Your task to perform on an android device: Clear all items from cart on bestbuy.com. Search for "rayovac triple a" on bestbuy.com, select the first entry, add it to the cart, then select checkout. Image 0: 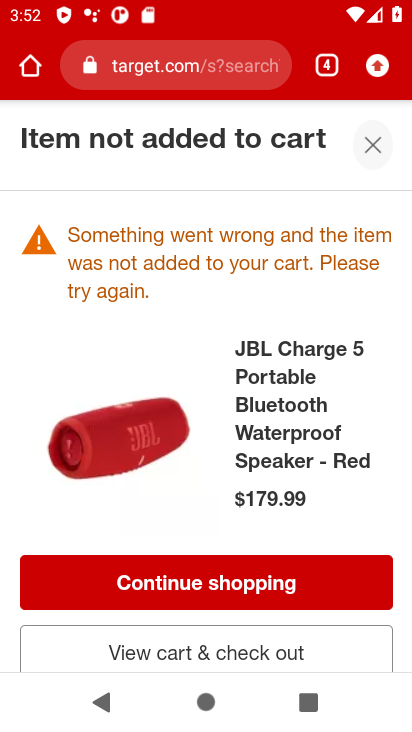
Step 0: press home button
Your task to perform on an android device: Clear all items from cart on bestbuy.com. Search for "rayovac triple a" on bestbuy.com, select the first entry, add it to the cart, then select checkout. Image 1: 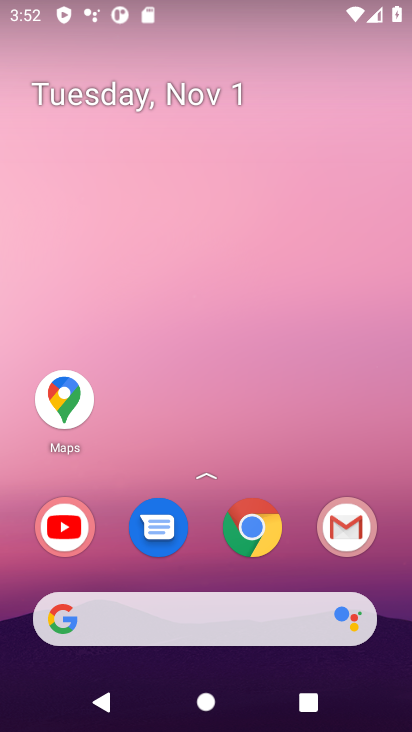
Step 1: click (193, 612)
Your task to perform on an android device: Clear all items from cart on bestbuy.com. Search for "rayovac triple a" on bestbuy.com, select the first entry, add it to the cart, then select checkout. Image 2: 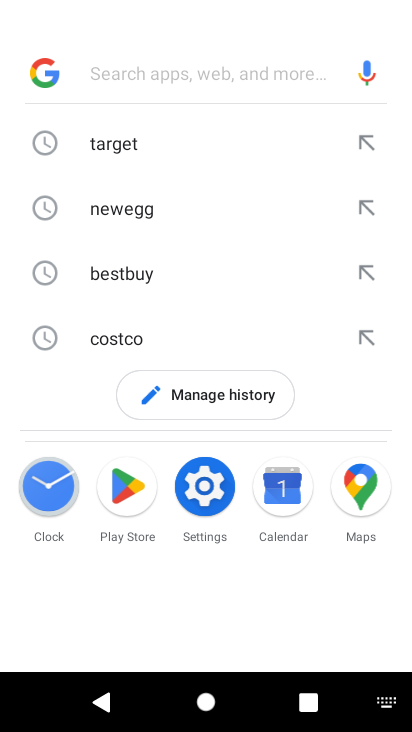
Step 2: type " bestbuy.com"
Your task to perform on an android device: Clear all items from cart on bestbuy.com. Search for "rayovac triple a" on bestbuy.com, select the first entry, add it to the cart, then select checkout. Image 3: 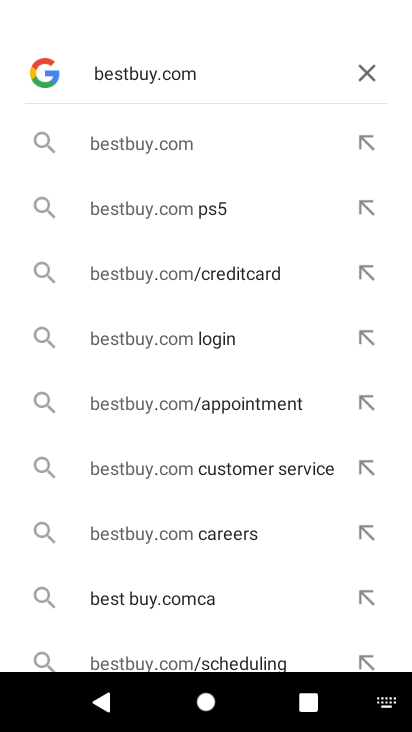
Step 3: press enter
Your task to perform on an android device: Clear all items from cart on bestbuy.com. Search for "rayovac triple a" on bestbuy.com, select the first entry, add it to the cart, then select checkout. Image 4: 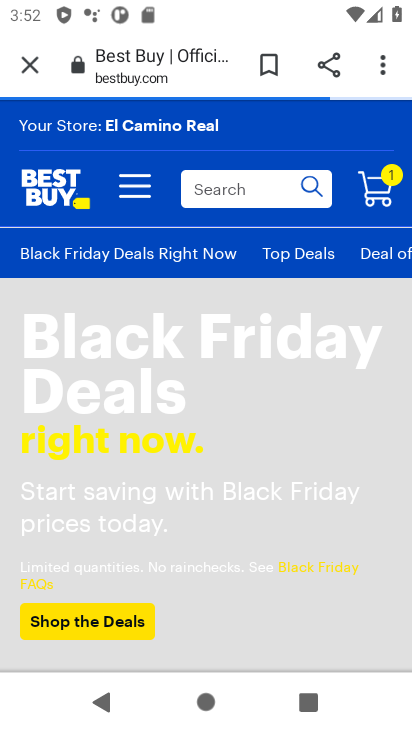
Step 4: click (383, 197)
Your task to perform on an android device: Clear all items from cart on bestbuy.com. Search for "rayovac triple a" on bestbuy.com, select the first entry, add it to the cart, then select checkout. Image 5: 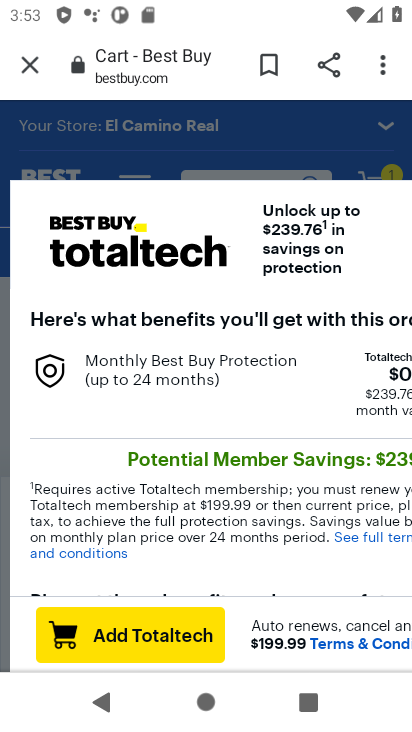
Step 5: drag from (281, 414) to (202, 298)
Your task to perform on an android device: Clear all items from cart on bestbuy.com. Search for "rayovac triple a" on bestbuy.com, select the first entry, add it to the cart, then select checkout. Image 6: 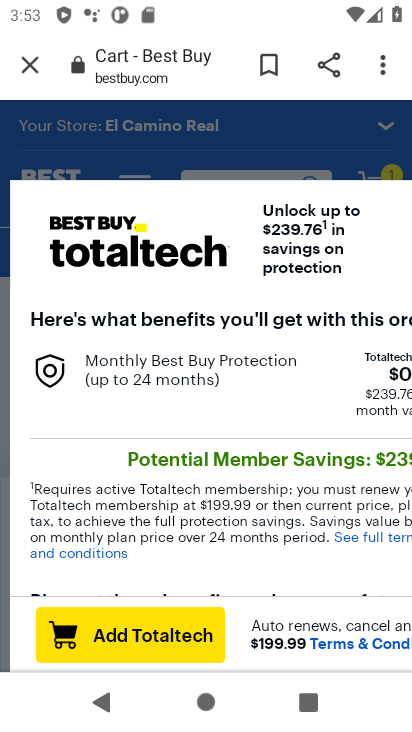
Step 6: click (282, 147)
Your task to perform on an android device: Clear all items from cart on bestbuy.com. Search for "rayovac triple a" on bestbuy.com, select the first entry, add it to the cart, then select checkout. Image 7: 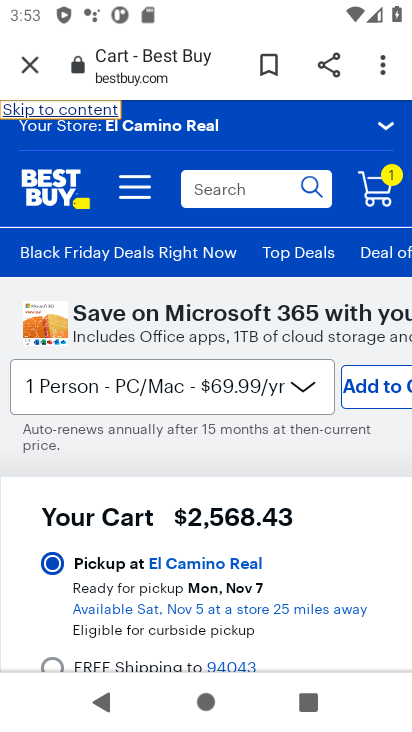
Step 7: drag from (269, 580) to (204, 547)
Your task to perform on an android device: Clear all items from cart on bestbuy.com. Search for "rayovac triple a" on bestbuy.com, select the first entry, add it to the cart, then select checkout. Image 8: 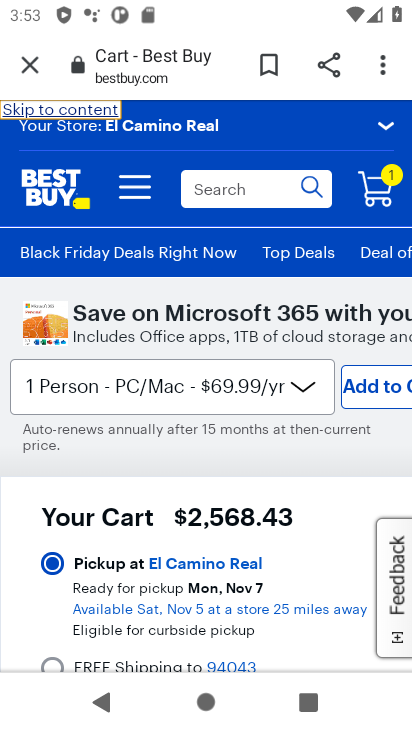
Step 8: click (102, 529)
Your task to perform on an android device: Clear all items from cart on bestbuy.com. Search for "rayovac triple a" on bestbuy.com, select the first entry, add it to the cart, then select checkout. Image 9: 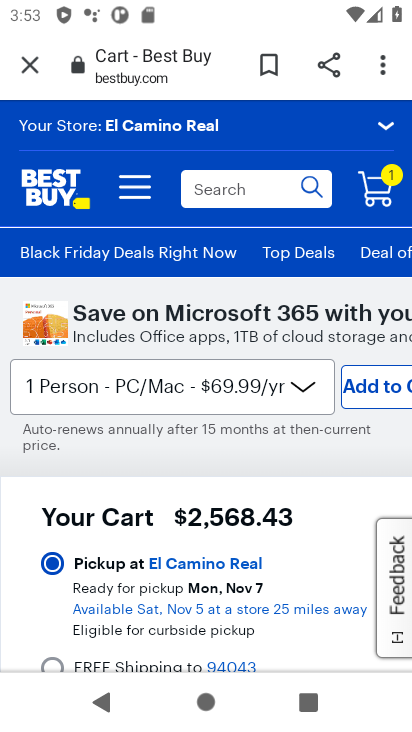
Step 9: drag from (277, 622) to (36, 576)
Your task to perform on an android device: Clear all items from cart on bestbuy.com. Search for "rayovac triple a" on bestbuy.com, select the first entry, add it to the cart, then select checkout. Image 10: 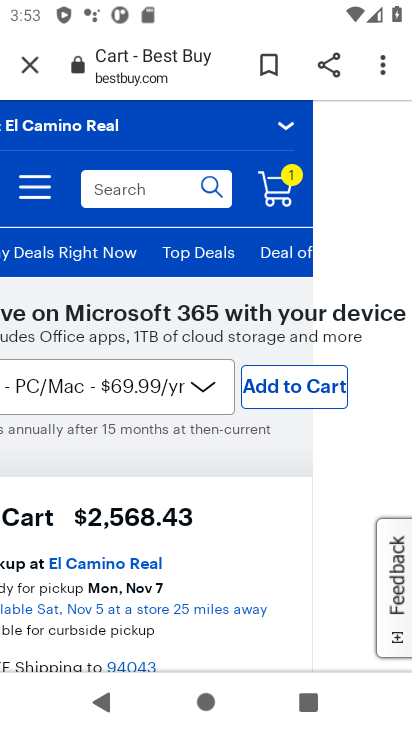
Step 10: drag from (239, 545) to (252, 440)
Your task to perform on an android device: Clear all items from cart on bestbuy.com. Search for "rayovac triple a" on bestbuy.com, select the first entry, add it to the cart, then select checkout. Image 11: 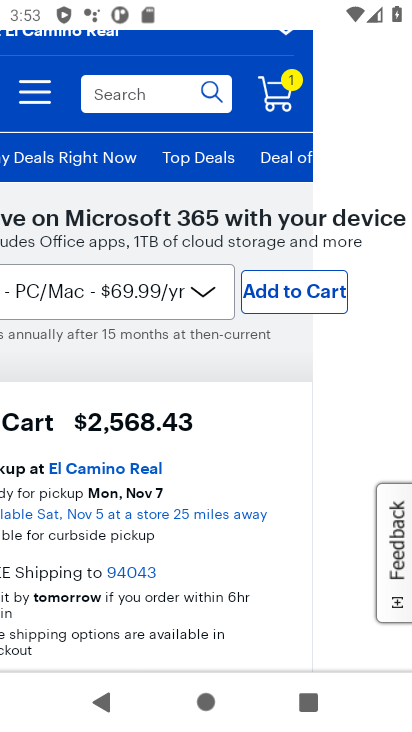
Step 11: drag from (237, 456) to (352, 458)
Your task to perform on an android device: Clear all items from cart on bestbuy.com. Search for "rayovac triple a" on bestbuy.com, select the first entry, add it to the cart, then select checkout. Image 12: 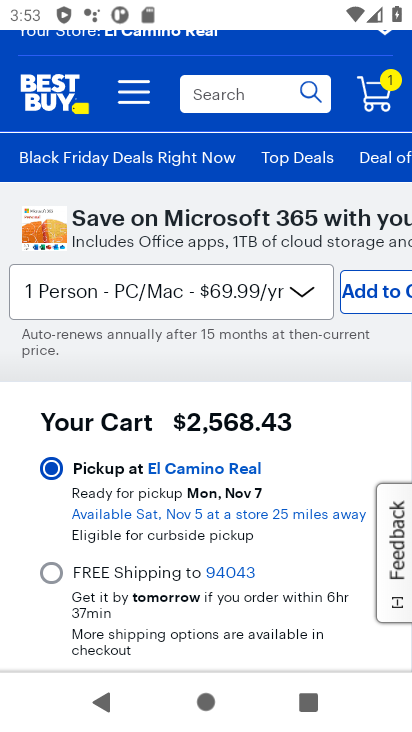
Step 12: click (308, 294)
Your task to perform on an android device: Clear all items from cart on bestbuy.com. Search for "rayovac triple a" on bestbuy.com, select the first entry, add it to the cart, then select checkout. Image 13: 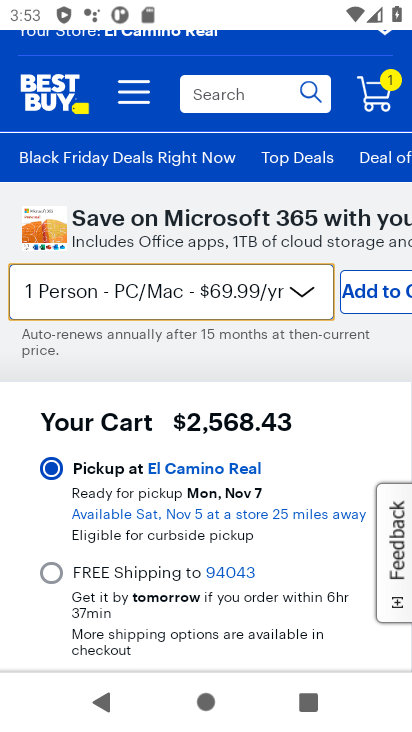
Step 13: click (304, 292)
Your task to perform on an android device: Clear all items from cart on bestbuy.com. Search for "rayovac triple a" on bestbuy.com, select the first entry, add it to the cart, then select checkout. Image 14: 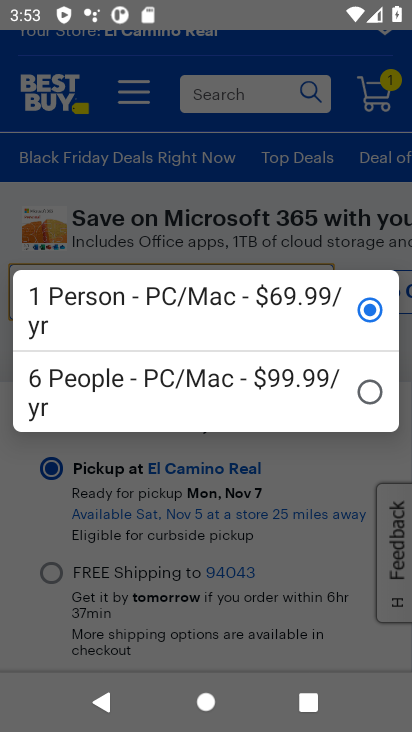
Step 14: click (23, 517)
Your task to perform on an android device: Clear all items from cart on bestbuy.com. Search for "rayovac triple a" on bestbuy.com, select the first entry, add it to the cart, then select checkout. Image 15: 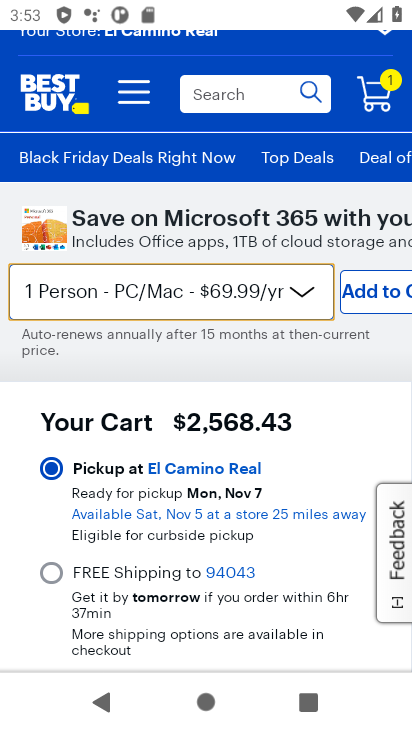
Step 15: click (54, 467)
Your task to perform on an android device: Clear all items from cart on bestbuy.com. Search for "rayovac triple a" on bestbuy.com, select the first entry, add it to the cart, then select checkout. Image 16: 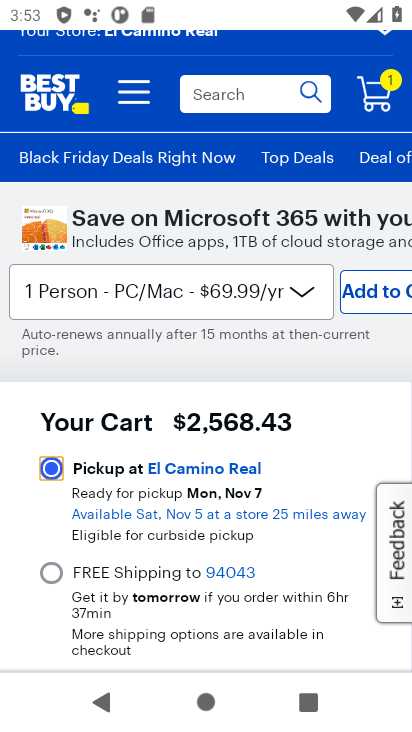
Step 16: click (54, 467)
Your task to perform on an android device: Clear all items from cart on bestbuy.com. Search for "rayovac triple a" on bestbuy.com, select the first entry, add it to the cart, then select checkout. Image 17: 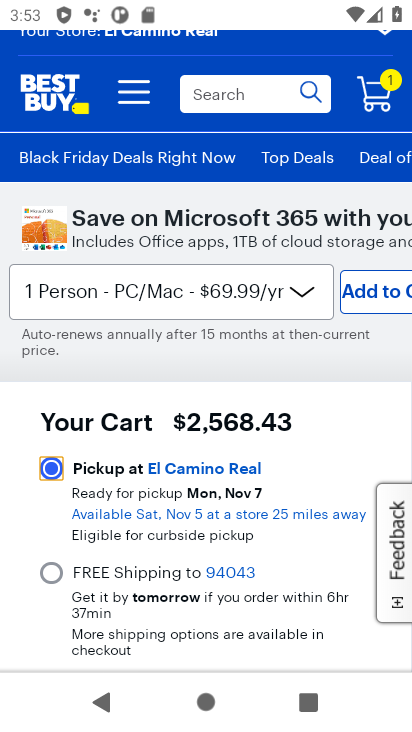
Step 17: click (267, 251)
Your task to perform on an android device: Clear all items from cart on bestbuy.com. Search for "rayovac triple a" on bestbuy.com, select the first entry, add it to the cart, then select checkout. Image 18: 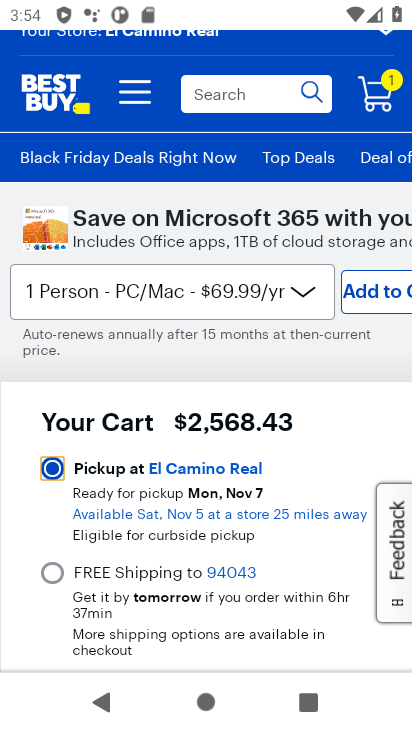
Step 18: drag from (160, 583) to (125, 229)
Your task to perform on an android device: Clear all items from cart on bestbuy.com. Search for "rayovac triple a" on bestbuy.com, select the first entry, add it to the cart, then select checkout. Image 19: 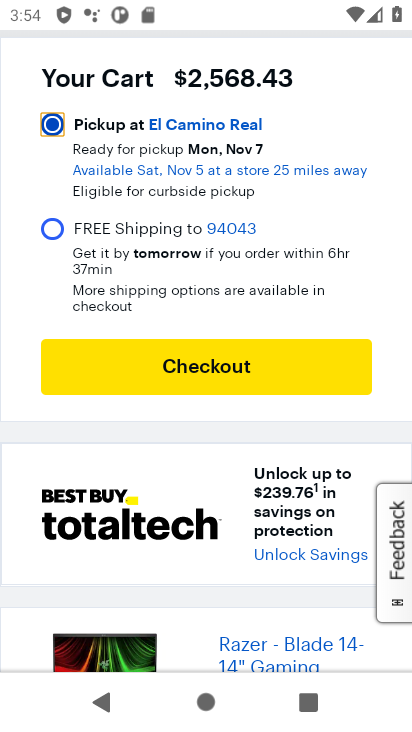
Step 19: drag from (191, 569) to (132, 239)
Your task to perform on an android device: Clear all items from cart on bestbuy.com. Search for "rayovac triple a" on bestbuy.com, select the first entry, add it to the cart, then select checkout. Image 20: 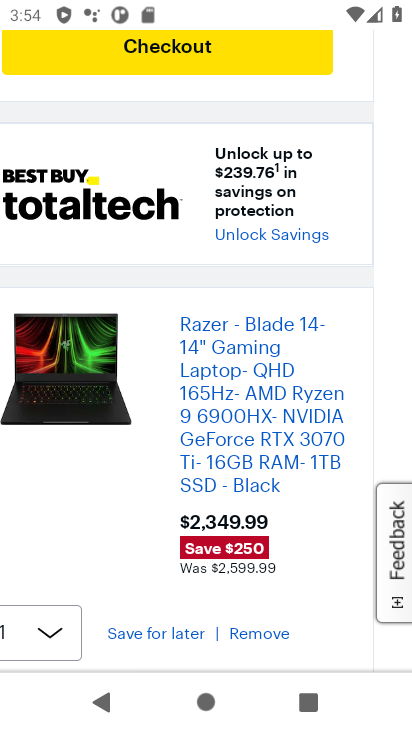
Step 20: drag from (123, 542) to (199, 397)
Your task to perform on an android device: Clear all items from cart on bestbuy.com. Search for "rayovac triple a" on bestbuy.com, select the first entry, add it to the cart, then select checkout. Image 21: 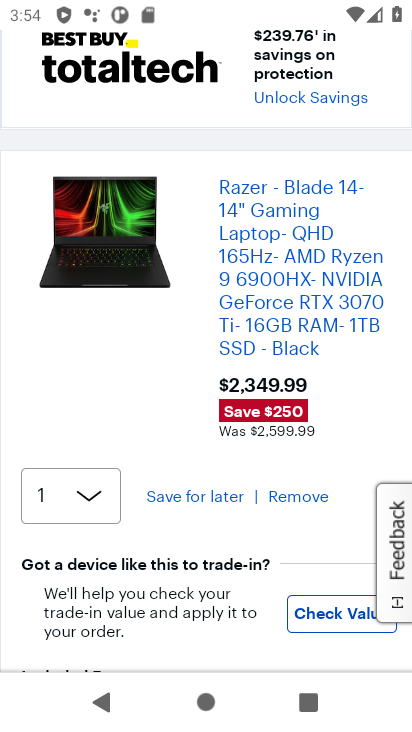
Step 21: click (295, 490)
Your task to perform on an android device: Clear all items from cart on bestbuy.com. Search for "rayovac triple a" on bestbuy.com, select the first entry, add it to the cart, then select checkout. Image 22: 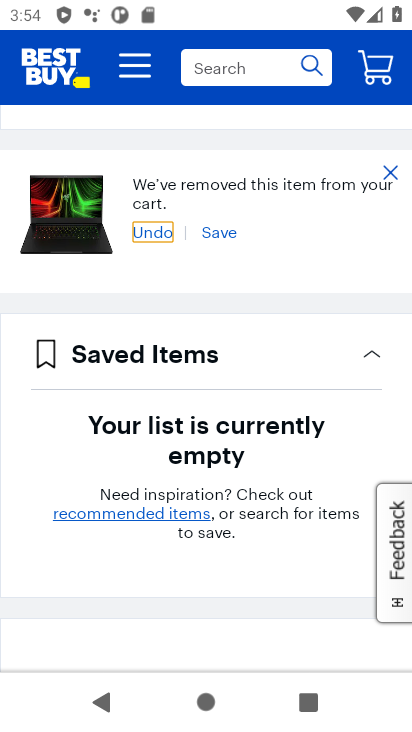
Step 22: click (235, 71)
Your task to perform on an android device: Clear all items from cart on bestbuy.com. Search for "rayovac triple a" on bestbuy.com, select the first entry, add it to the cart, then select checkout. Image 23: 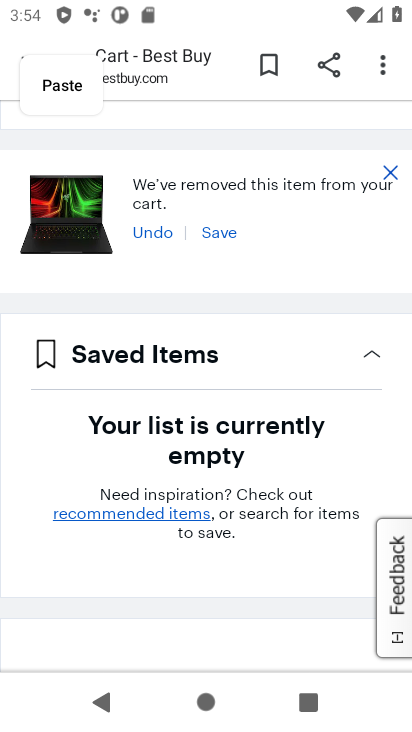
Step 23: type "rayovac triple a"
Your task to perform on an android device: Clear all items from cart on bestbuy.com. Search for "rayovac triple a" on bestbuy.com, select the first entry, add it to the cart, then select checkout. Image 24: 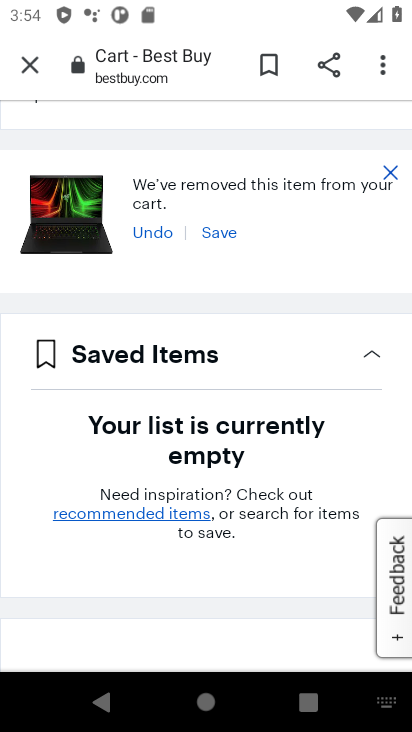
Step 24: press enter
Your task to perform on an android device: Clear all items from cart on bestbuy.com. Search for "rayovac triple a" on bestbuy.com, select the first entry, add it to the cart, then select checkout. Image 25: 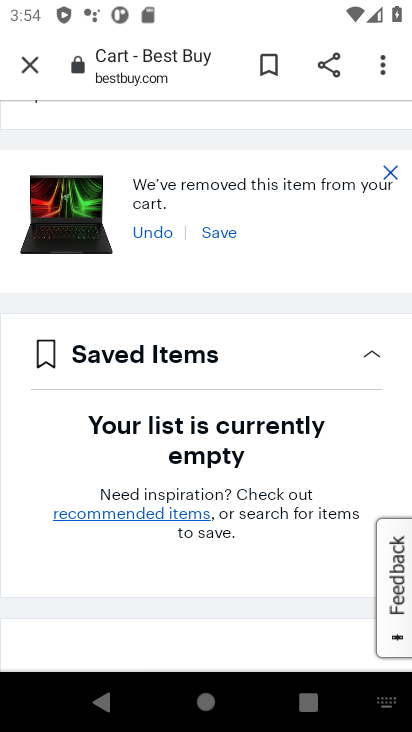
Step 25: type ""
Your task to perform on an android device: Clear all items from cart on bestbuy.com. Search for "rayovac triple a" on bestbuy.com, select the first entry, add it to the cart, then select checkout. Image 26: 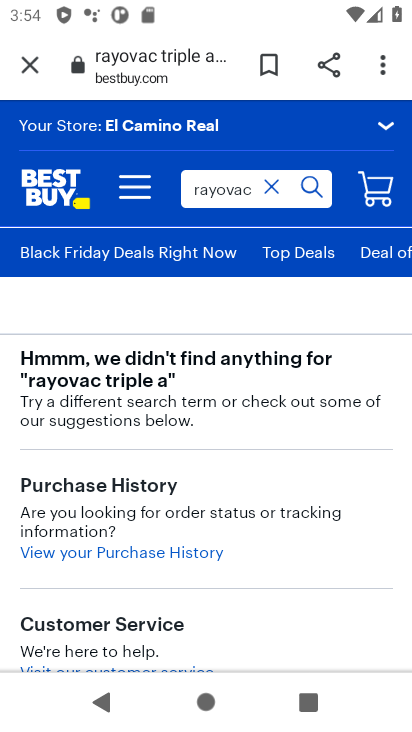
Step 26: drag from (269, 528) to (251, 260)
Your task to perform on an android device: Clear all items from cart on bestbuy.com. Search for "rayovac triple a" on bestbuy.com, select the first entry, add it to the cart, then select checkout. Image 27: 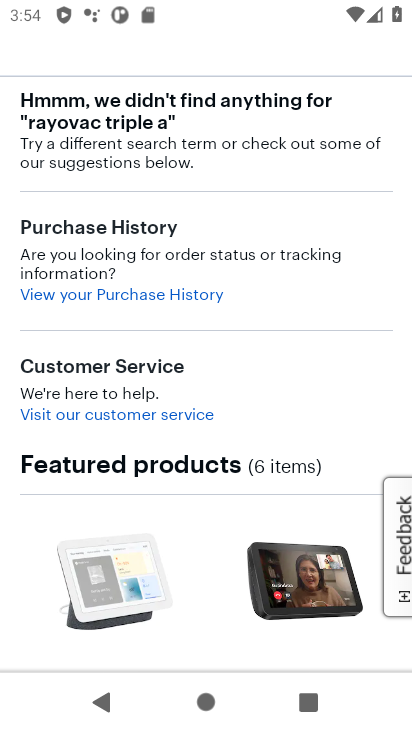
Step 27: drag from (214, 551) to (216, 317)
Your task to perform on an android device: Clear all items from cart on bestbuy.com. Search for "rayovac triple a" on bestbuy.com, select the first entry, add it to the cart, then select checkout. Image 28: 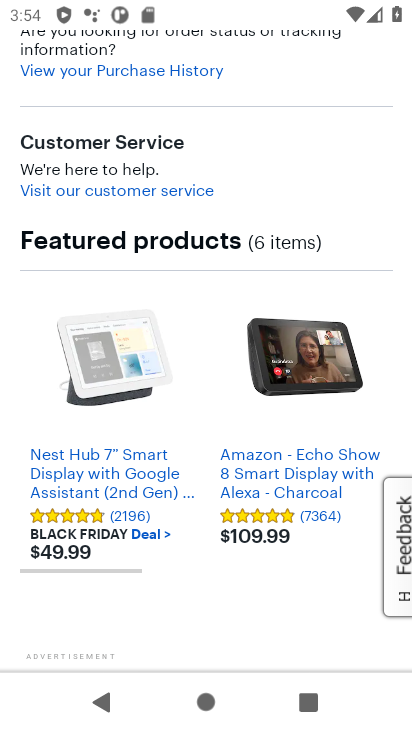
Step 28: click (89, 475)
Your task to perform on an android device: Clear all items from cart on bestbuy.com. Search for "rayovac triple a" on bestbuy.com, select the first entry, add it to the cart, then select checkout. Image 29: 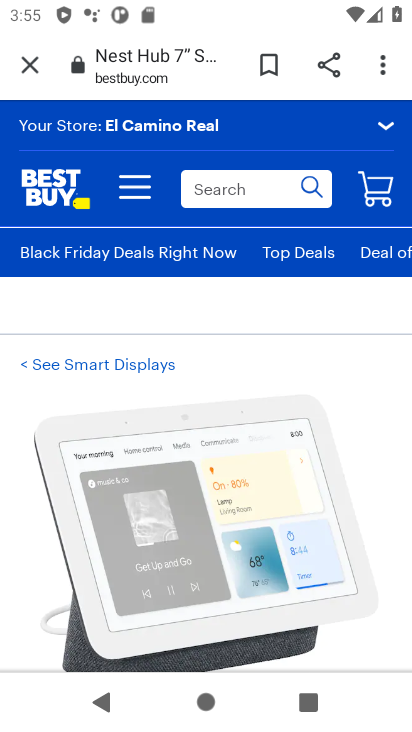
Step 29: drag from (199, 537) to (212, 207)
Your task to perform on an android device: Clear all items from cart on bestbuy.com. Search for "rayovac triple a" on bestbuy.com, select the first entry, add it to the cart, then select checkout. Image 30: 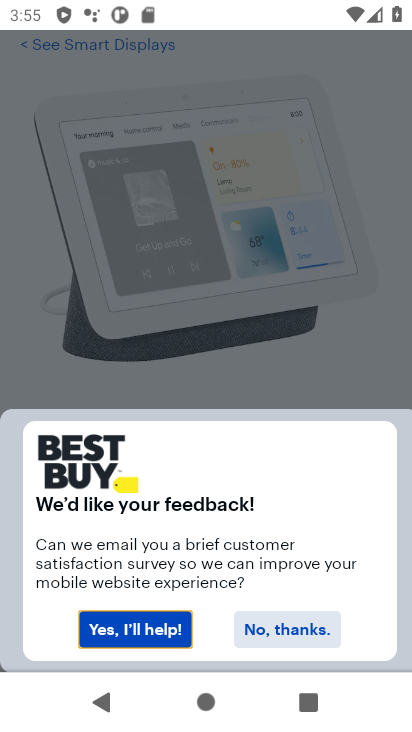
Step 30: drag from (289, 606) to (255, 451)
Your task to perform on an android device: Clear all items from cart on bestbuy.com. Search for "rayovac triple a" on bestbuy.com, select the first entry, add it to the cart, then select checkout. Image 31: 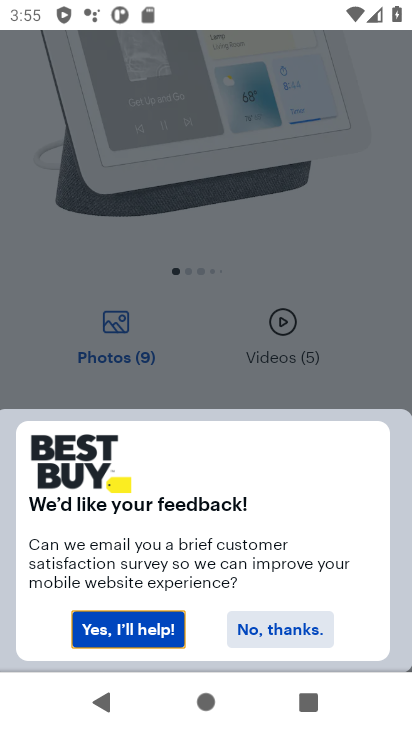
Step 31: click (249, 628)
Your task to perform on an android device: Clear all items from cart on bestbuy.com. Search for "rayovac triple a" on bestbuy.com, select the first entry, add it to the cart, then select checkout. Image 32: 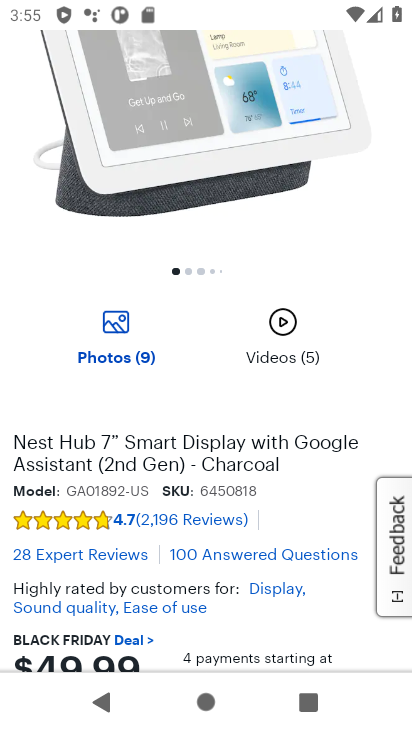
Step 32: drag from (250, 628) to (249, 392)
Your task to perform on an android device: Clear all items from cart on bestbuy.com. Search for "rayovac triple a" on bestbuy.com, select the first entry, add it to the cart, then select checkout. Image 33: 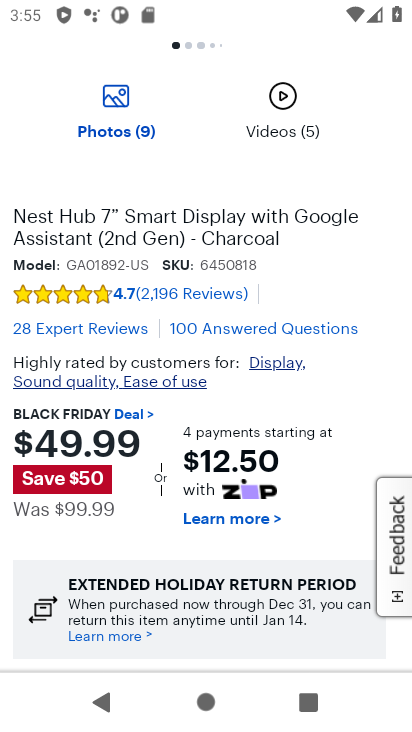
Step 33: drag from (196, 569) to (207, 268)
Your task to perform on an android device: Clear all items from cart on bestbuy.com. Search for "rayovac triple a" on bestbuy.com, select the first entry, add it to the cart, then select checkout. Image 34: 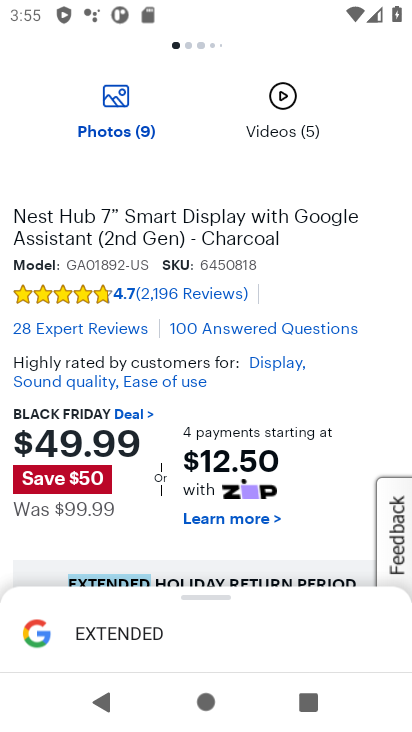
Step 34: click (341, 497)
Your task to perform on an android device: Clear all items from cart on bestbuy.com. Search for "rayovac triple a" on bestbuy.com, select the first entry, add it to the cart, then select checkout. Image 35: 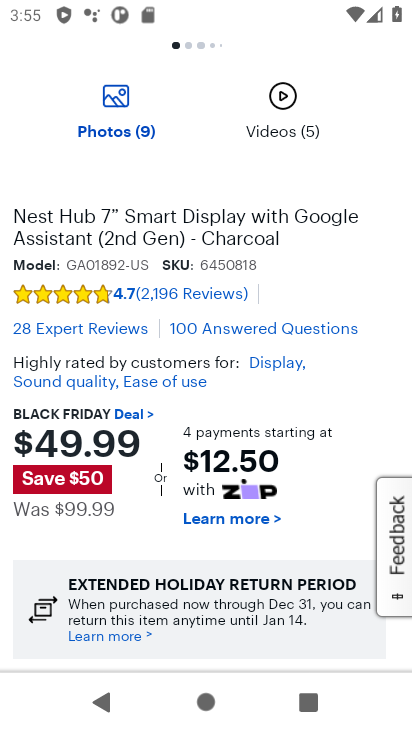
Step 35: drag from (329, 523) to (310, 76)
Your task to perform on an android device: Clear all items from cart on bestbuy.com. Search for "rayovac triple a" on bestbuy.com, select the first entry, add it to the cart, then select checkout. Image 36: 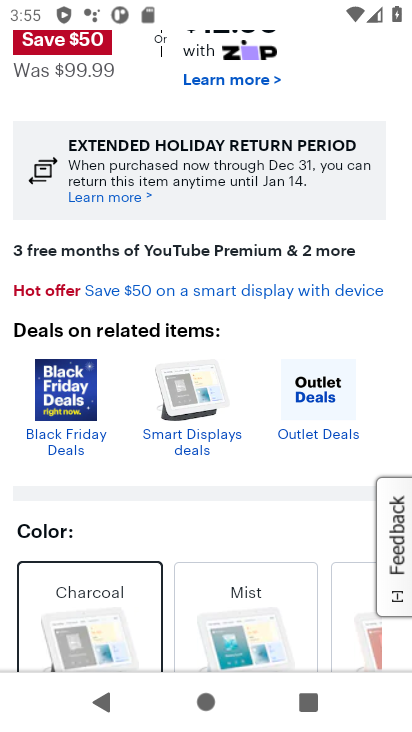
Step 36: drag from (220, 519) to (241, 103)
Your task to perform on an android device: Clear all items from cart on bestbuy.com. Search for "rayovac triple a" on bestbuy.com, select the first entry, add it to the cart, then select checkout. Image 37: 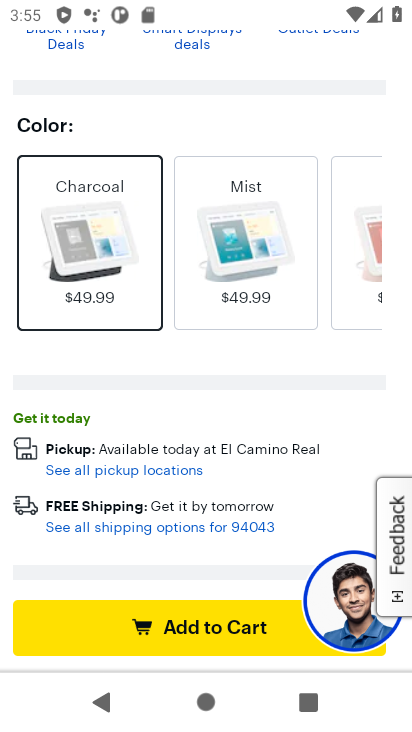
Step 37: click (182, 630)
Your task to perform on an android device: Clear all items from cart on bestbuy.com. Search for "rayovac triple a" on bestbuy.com, select the first entry, add it to the cart, then select checkout. Image 38: 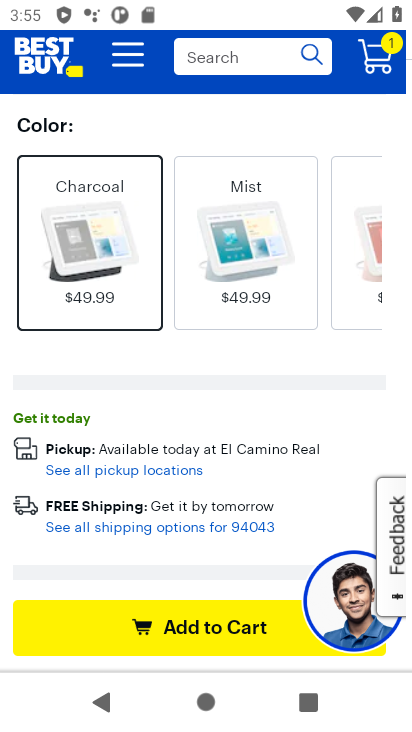
Step 38: click (382, 51)
Your task to perform on an android device: Clear all items from cart on bestbuy.com. Search for "rayovac triple a" on bestbuy.com, select the first entry, add it to the cart, then select checkout. Image 39: 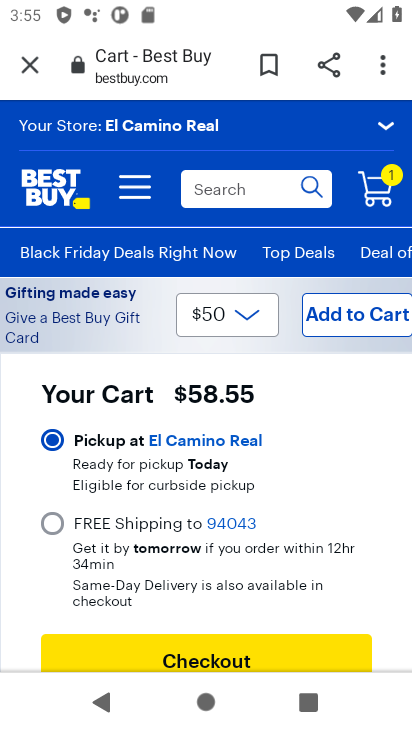
Step 39: click (262, 651)
Your task to perform on an android device: Clear all items from cart on bestbuy.com. Search for "rayovac triple a" on bestbuy.com, select the first entry, add it to the cart, then select checkout. Image 40: 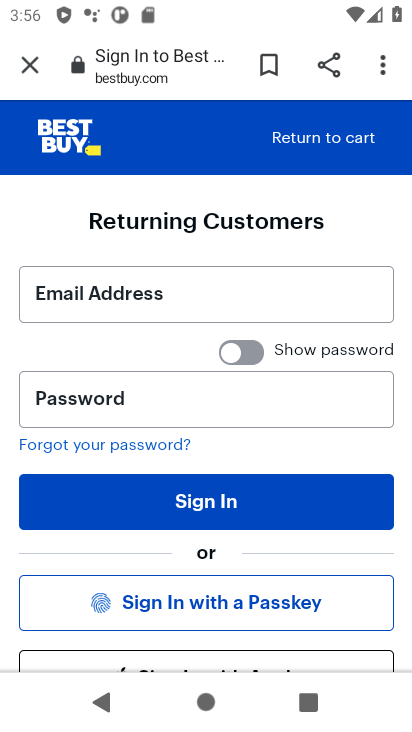
Step 40: task complete